Your task to perform on an android device: open chrome privacy settings Image 0: 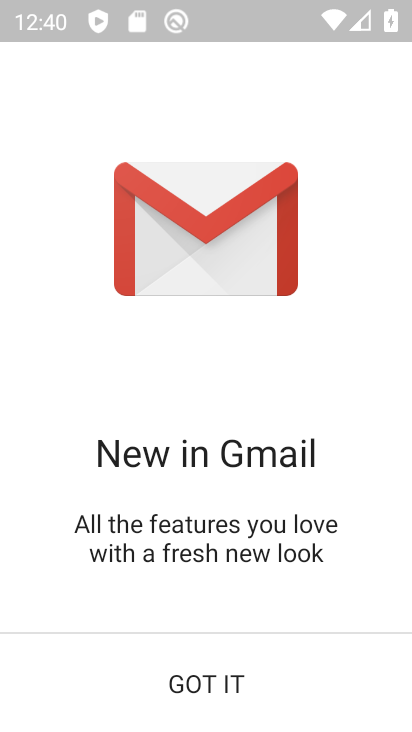
Step 0: click (234, 699)
Your task to perform on an android device: open chrome privacy settings Image 1: 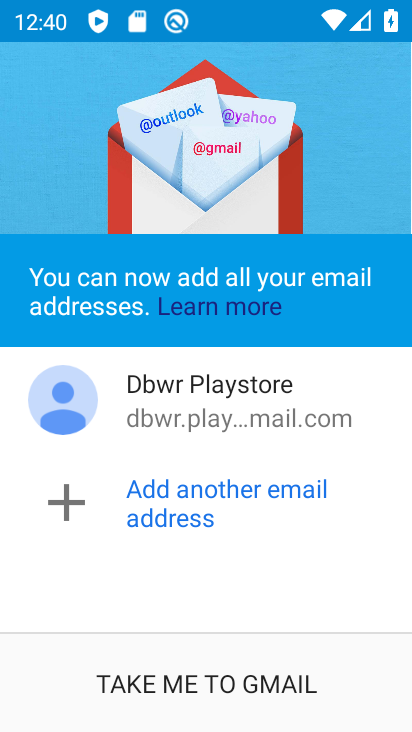
Step 1: click (233, 694)
Your task to perform on an android device: open chrome privacy settings Image 2: 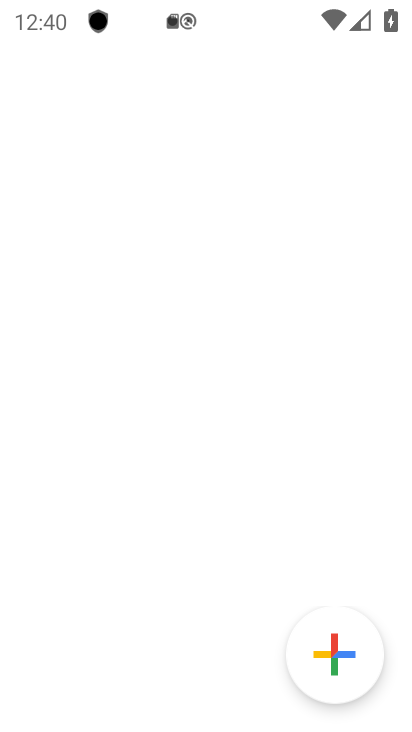
Step 2: click (232, 692)
Your task to perform on an android device: open chrome privacy settings Image 3: 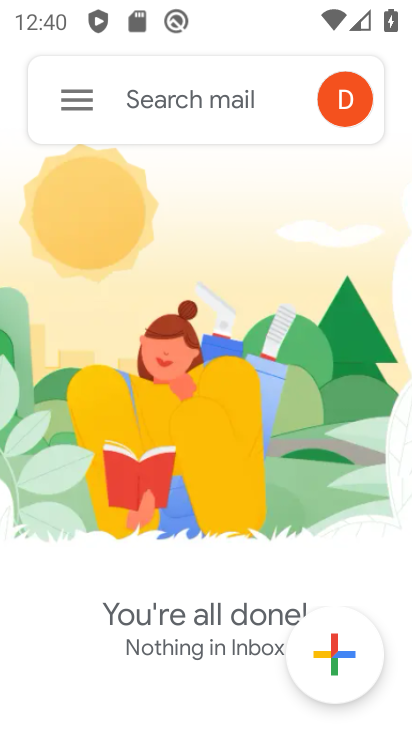
Step 3: press home button
Your task to perform on an android device: open chrome privacy settings Image 4: 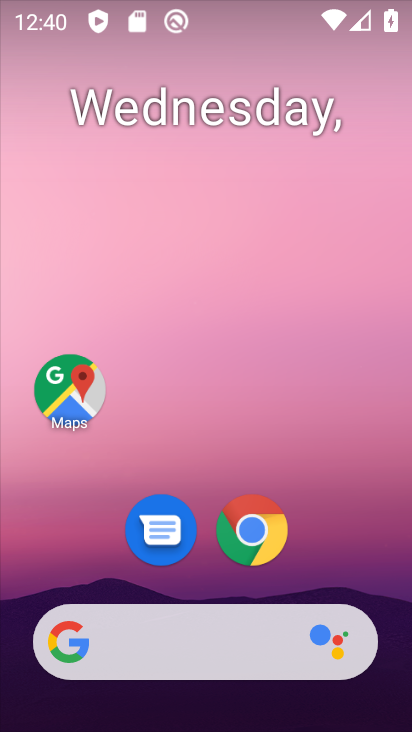
Step 4: drag from (323, 553) to (314, 141)
Your task to perform on an android device: open chrome privacy settings Image 5: 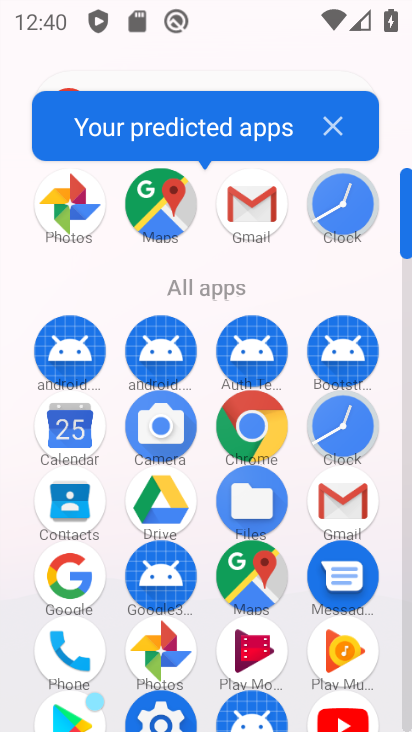
Step 5: drag from (295, 637) to (253, 306)
Your task to perform on an android device: open chrome privacy settings Image 6: 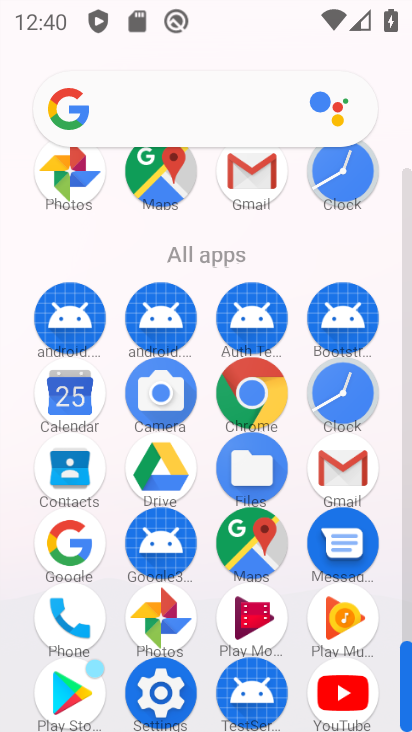
Step 6: click (173, 695)
Your task to perform on an android device: open chrome privacy settings Image 7: 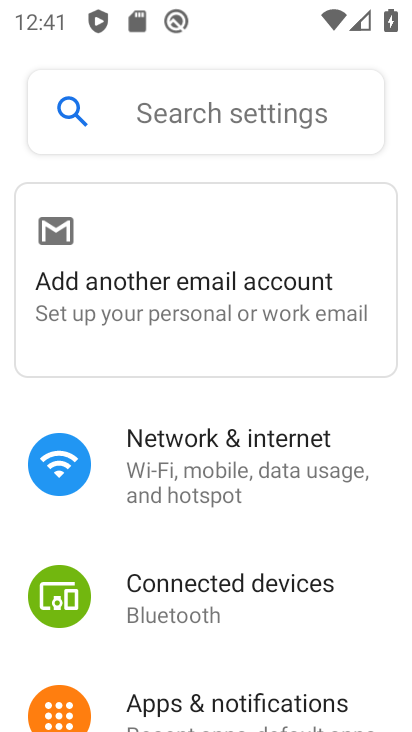
Step 7: press home button
Your task to perform on an android device: open chrome privacy settings Image 8: 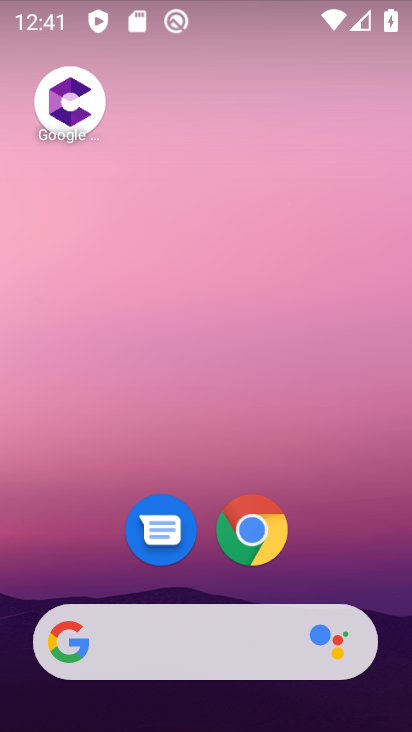
Step 8: drag from (340, 545) to (302, 190)
Your task to perform on an android device: open chrome privacy settings Image 9: 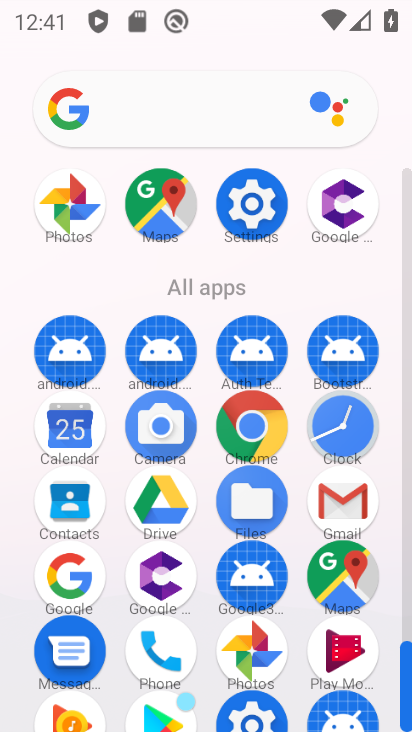
Step 9: click (266, 425)
Your task to perform on an android device: open chrome privacy settings Image 10: 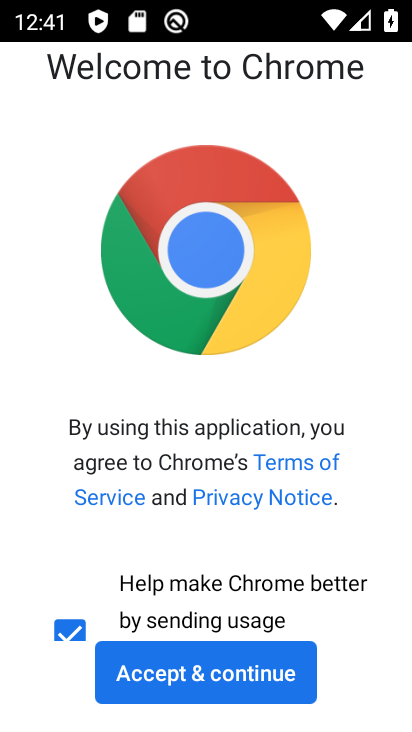
Step 10: click (248, 671)
Your task to perform on an android device: open chrome privacy settings Image 11: 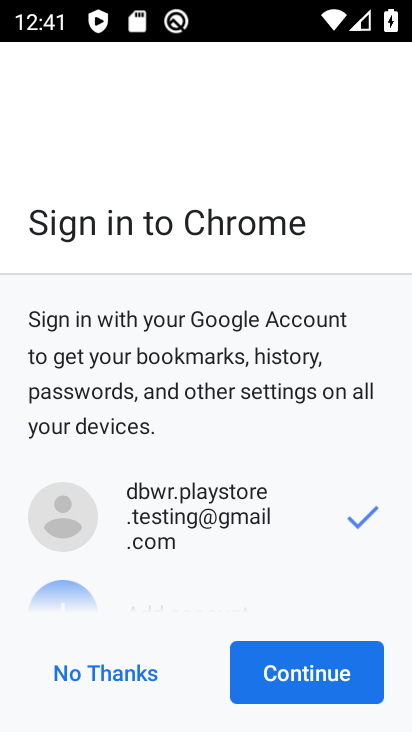
Step 11: click (270, 677)
Your task to perform on an android device: open chrome privacy settings Image 12: 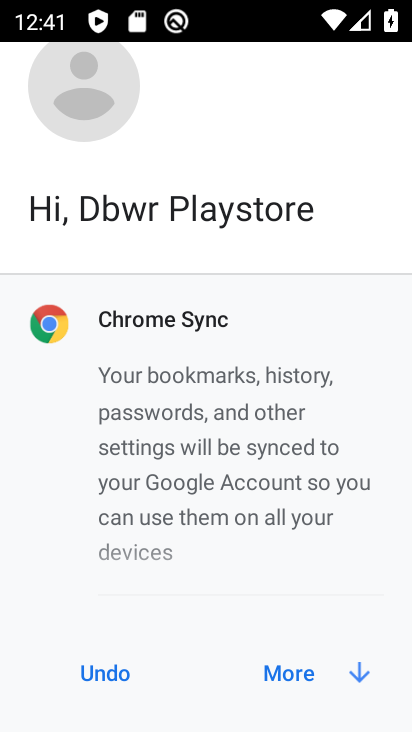
Step 12: click (319, 675)
Your task to perform on an android device: open chrome privacy settings Image 13: 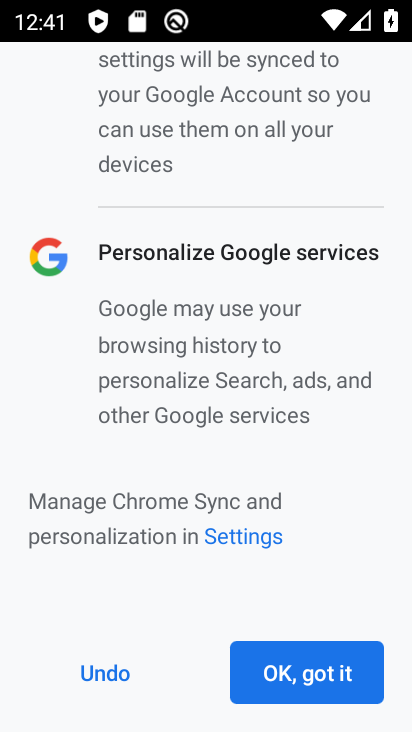
Step 13: click (320, 668)
Your task to perform on an android device: open chrome privacy settings Image 14: 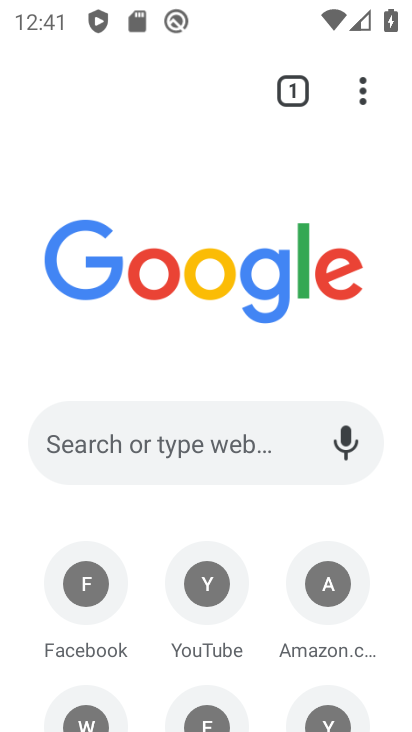
Step 14: drag from (365, 105) to (107, 563)
Your task to perform on an android device: open chrome privacy settings Image 15: 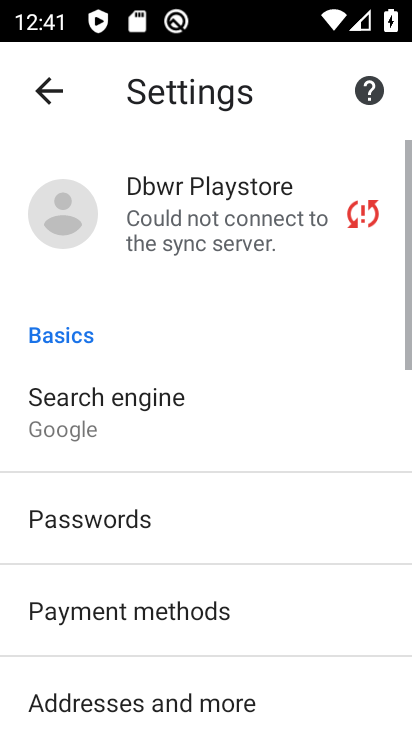
Step 15: drag from (237, 619) to (268, 251)
Your task to perform on an android device: open chrome privacy settings Image 16: 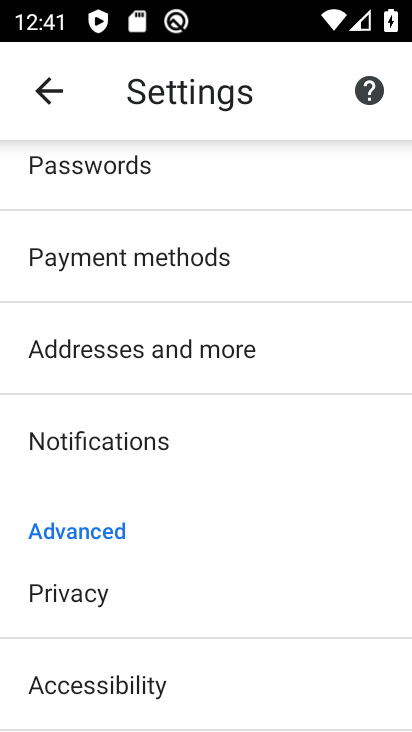
Step 16: click (149, 594)
Your task to perform on an android device: open chrome privacy settings Image 17: 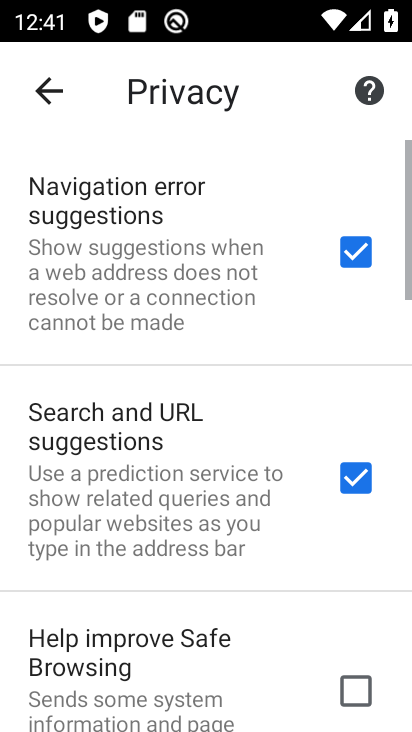
Step 17: task complete